Your task to perform on an android device: change notification settings in the gmail app Image 0: 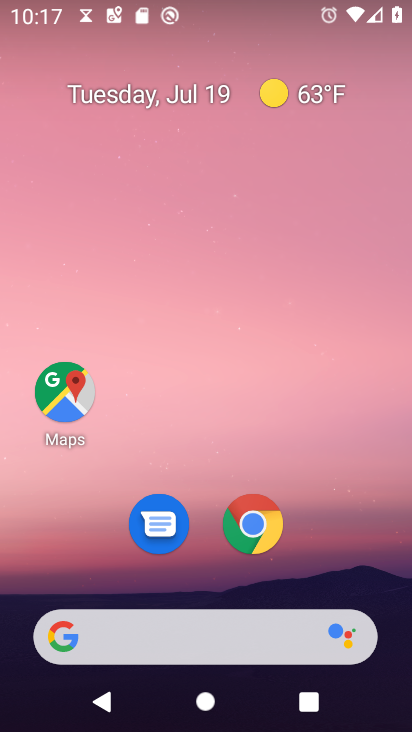
Step 0: press home button
Your task to perform on an android device: change notification settings in the gmail app Image 1: 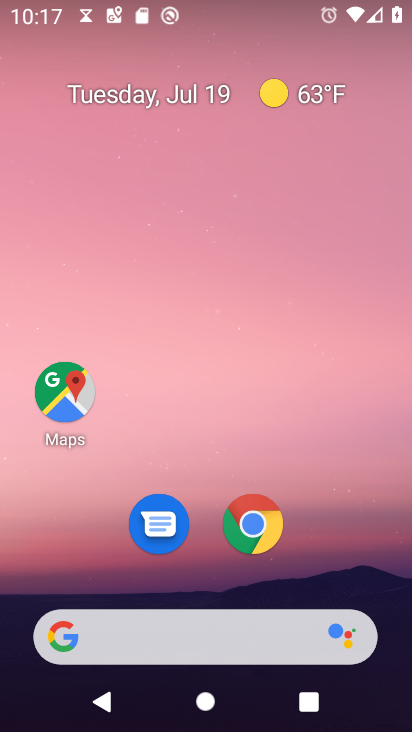
Step 1: drag from (235, 628) to (303, 102)
Your task to perform on an android device: change notification settings in the gmail app Image 2: 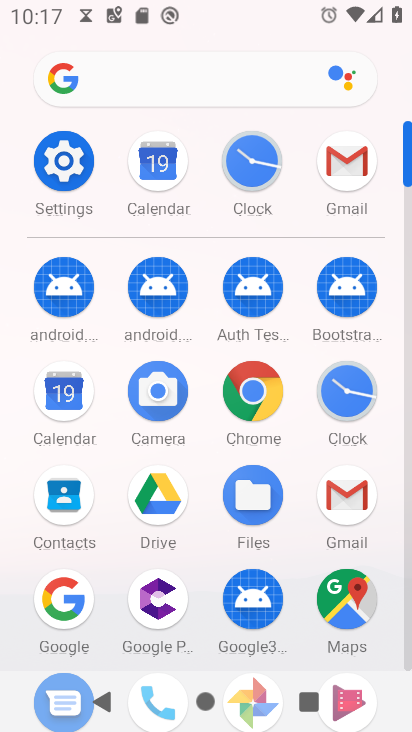
Step 2: click (356, 168)
Your task to perform on an android device: change notification settings in the gmail app Image 3: 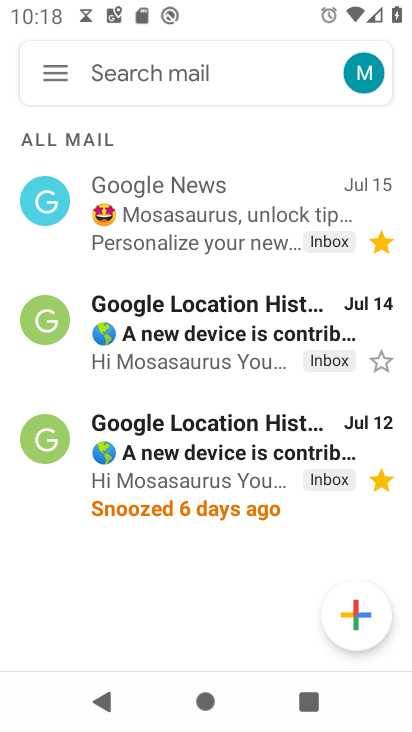
Step 3: click (62, 73)
Your task to perform on an android device: change notification settings in the gmail app Image 4: 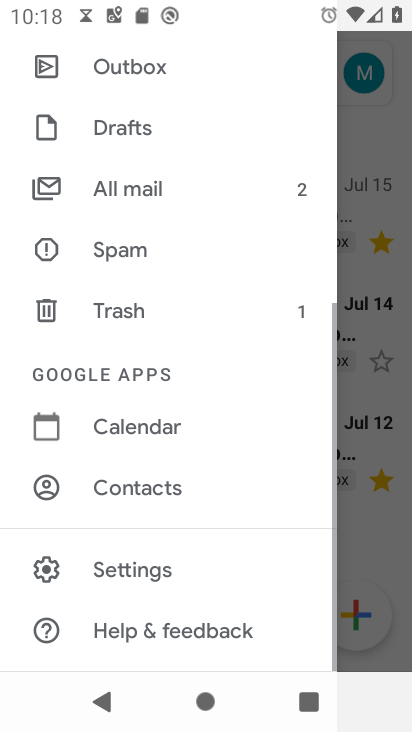
Step 4: click (167, 576)
Your task to perform on an android device: change notification settings in the gmail app Image 5: 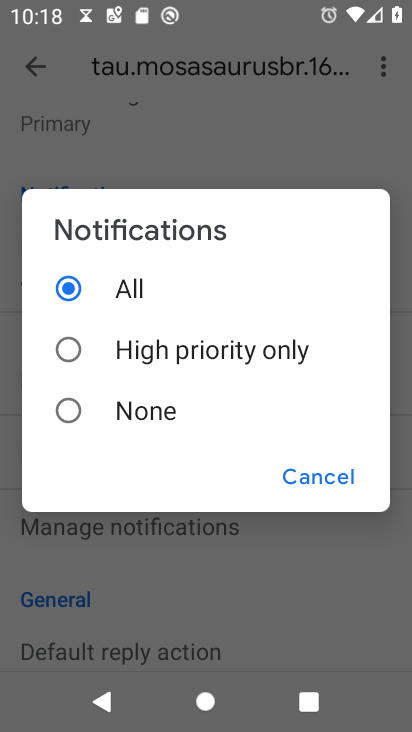
Step 5: click (75, 409)
Your task to perform on an android device: change notification settings in the gmail app Image 6: 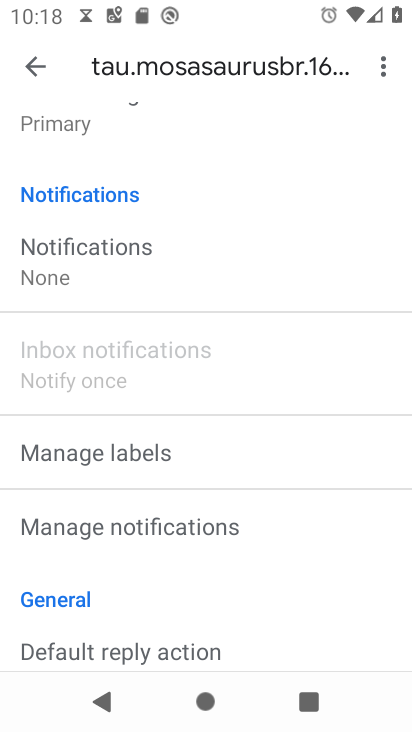
Step 6: task complete